Your task to perform on an android device: Open accessibility settings Image 0: 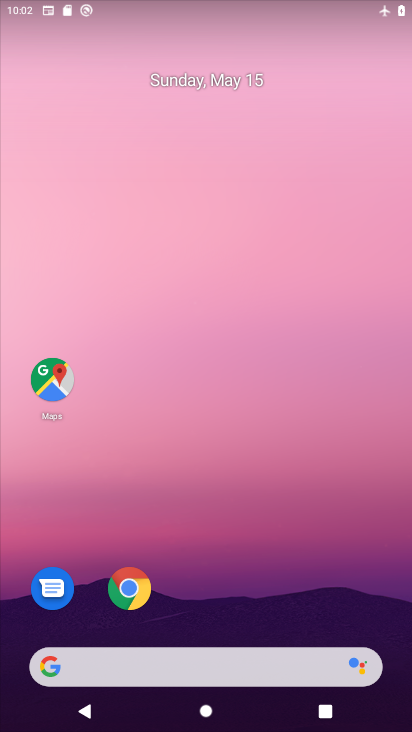
Step 0: drag from (248, 604) to (314, 143)
Your task to perform on an android device: Open accessibility settings Image 1: 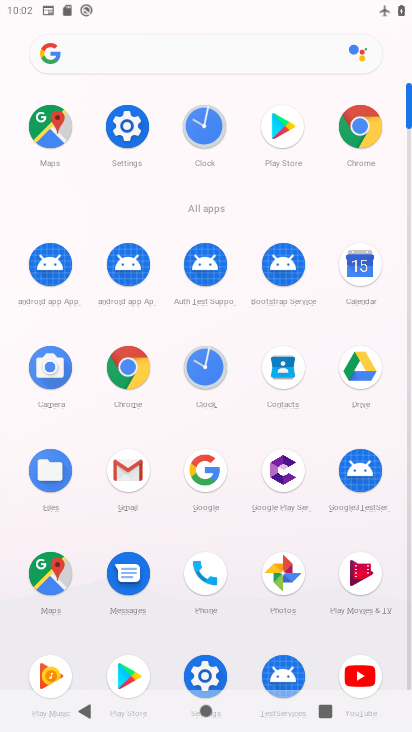
Step 1: click (129, 123)
Your task to perform on an android device: Open accessibility settings Image 2: 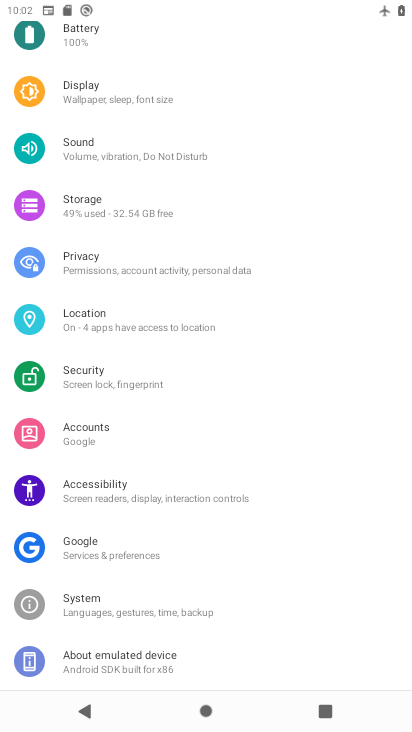
Step 2: click (141, 494)
Your task to perform on an android device: Open accessibility settings Image 3: 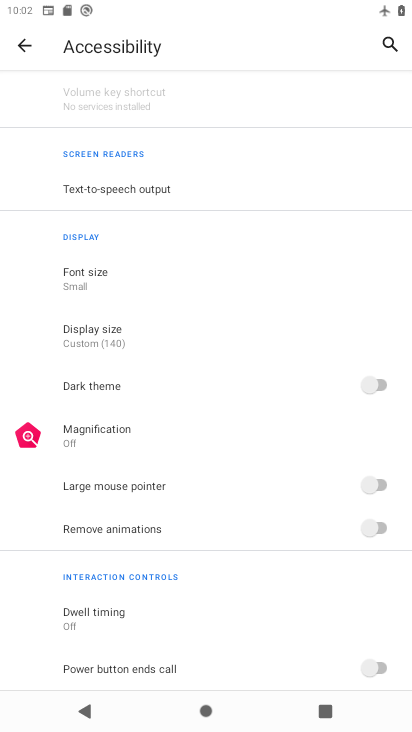
Step 3: task complete